Your task to perform on an android device: turn on priority inbox in the gmail app Image 0: 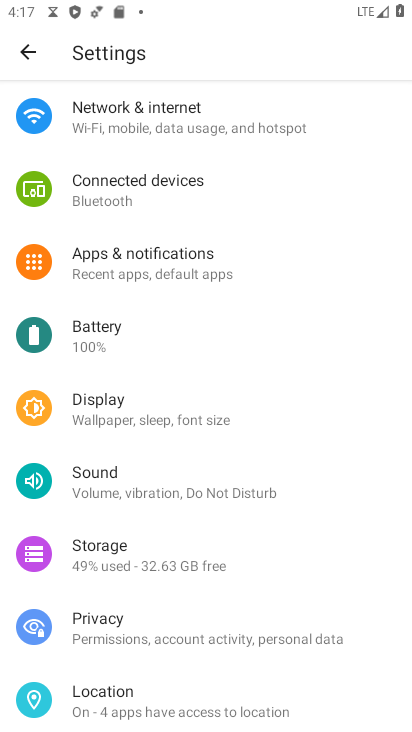
Step 0: press back button
Your task to perform on an android device: turn on priority inbox in the gmail app Image 1: 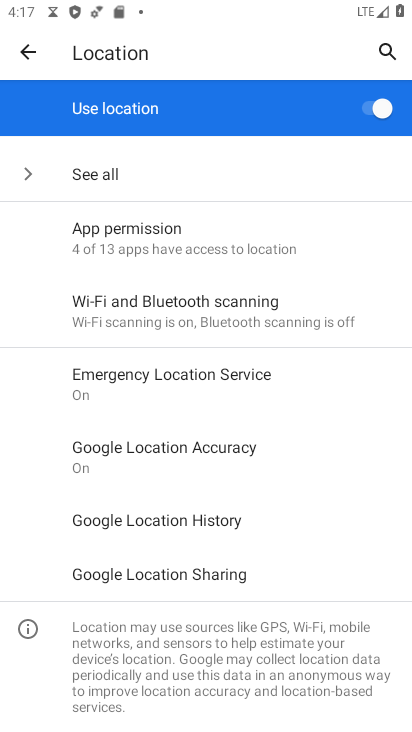
Step 1: click (18, 51)
Your task to perform on an android device: turn on priority inbox in the gmail app Image 2: 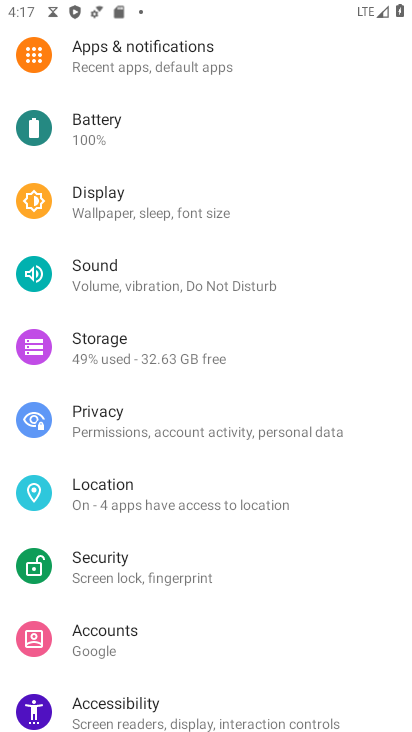
Step 2: drag from (225, 154) to (272, 628)
Your task to perform on an android device: turn on priority inbox in the gmail app Image 3: 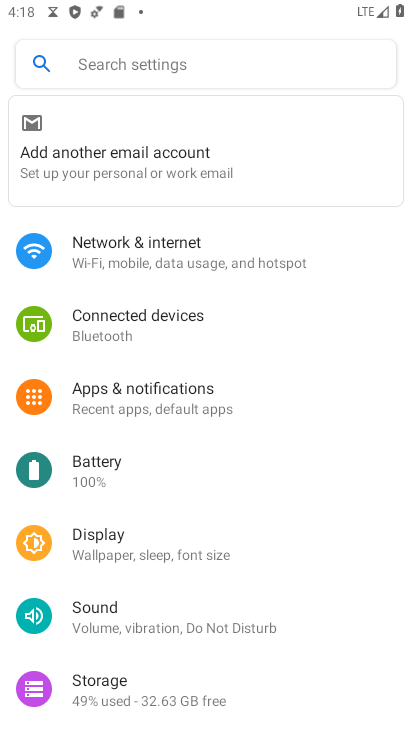
Step 3: press back button
Your task to perform on an android device: turn on priority inbox in the gmail app Image 4: 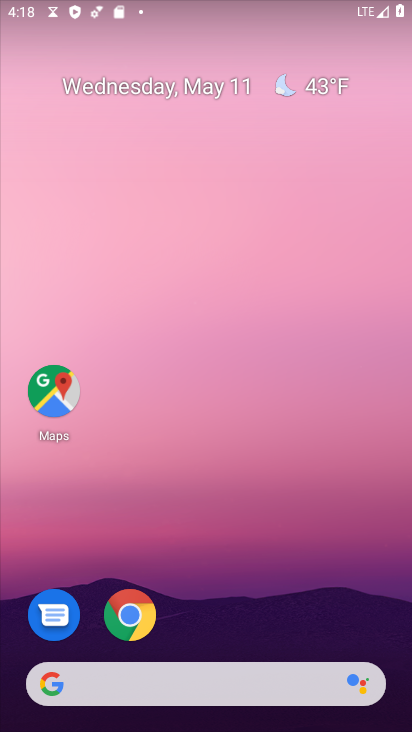
Step 4: drag from (241, 605) to (257, 60)
Your task to perform on an android device: turn on priority inbox in the gmail app Image 5: 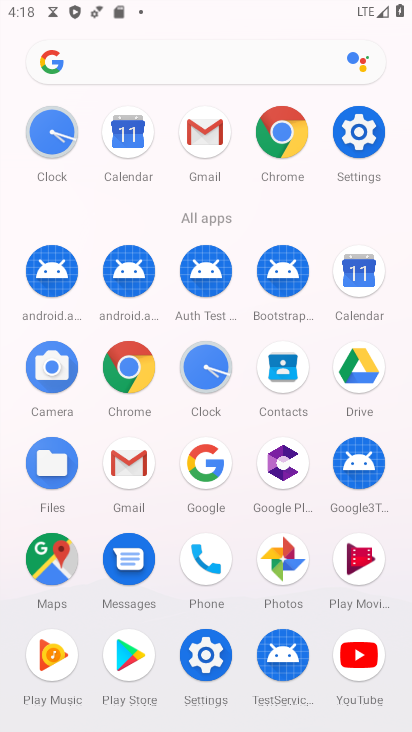
Step 5: click (127, 459)
Your task to perform on an android device: turn on priority inbox in the gmail app Image 6: 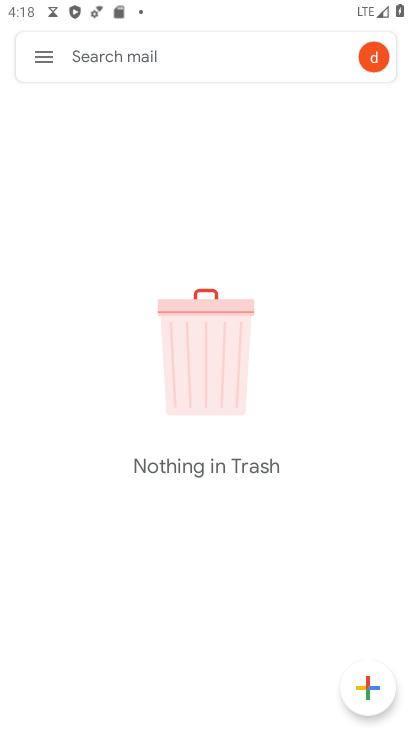
Step 6: click (40, 53)
Your task to perform on an android device: turn on priority inbox in the gmail app Image 7: 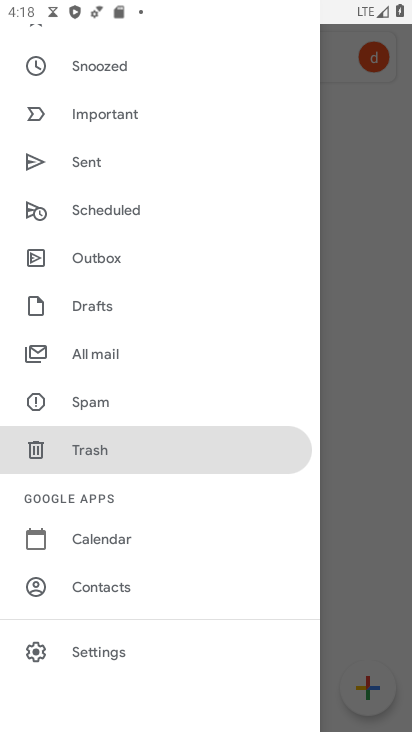
Step 7: click (88, 652)
Your task to perform on an android device: turn on priority inbox in the gmail app Image 8: 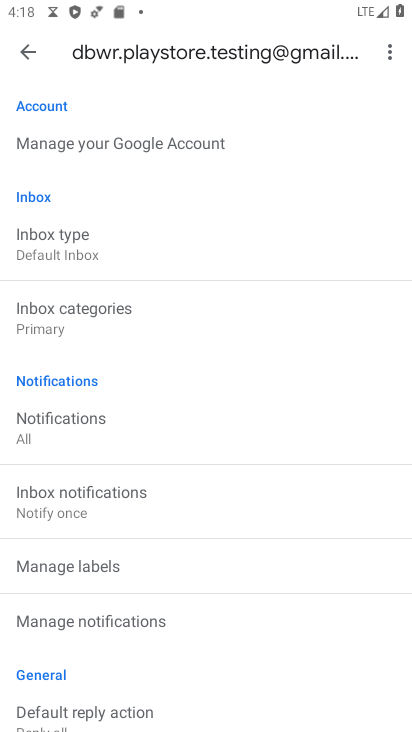
Step 8: click (95, 240)
Your task to perform on an android device: turn on priority inbox in the gmail app Image 9: 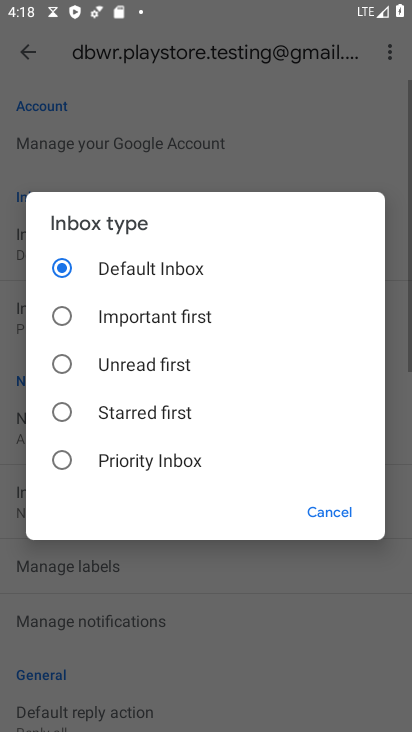
Step 9: click (136, 459)
Your task to perform on an android device: turn on priority inbox in the gmail app Image 10: 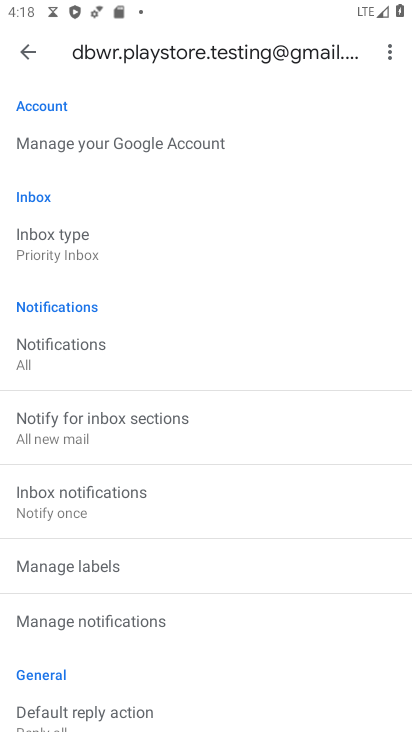
Step 10: task complete